Your task to perform on an android device: Open Google Maps Image 0: 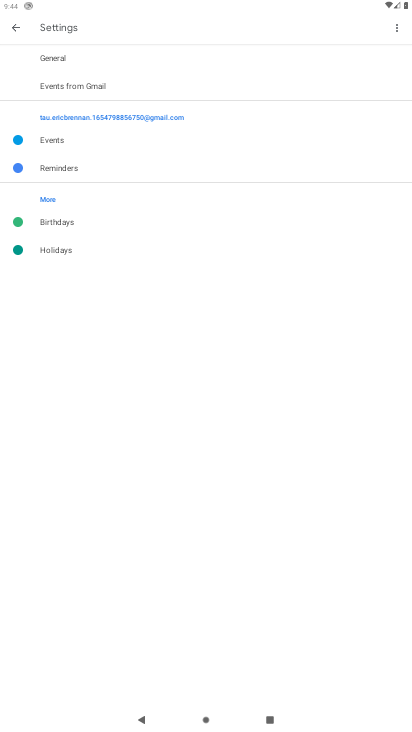
Step 0: press home button
Your task to perform on an android device: Open Google Maps Image 1: 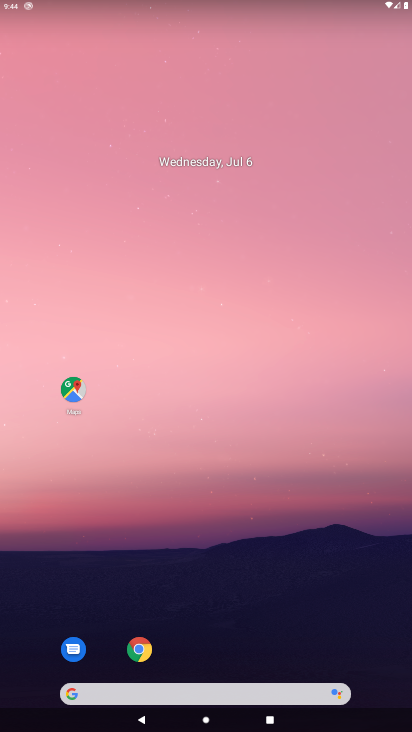
Step 1: click (73, 385)
Your task to perform on an android device: Open Google Maps Image 2: 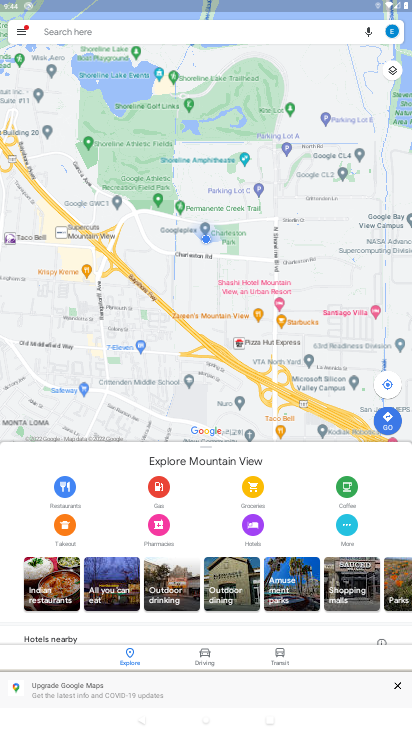
Step 2: task complete